Your task to perform on an android device: snooze an email in the gmail app Image 0: 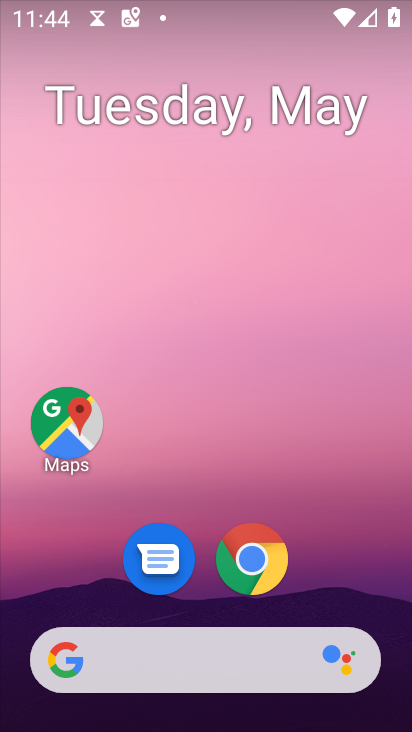
Step 0: drag from (313, 542) to (261, 98)
Your task to perform on an android device: snooze an email in the gmail app Image 1: 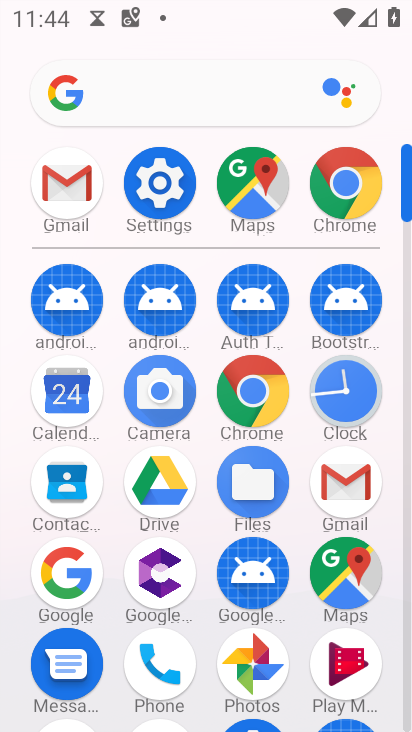
Step 1: click (51, 190)
Your task to perform on an android device: snooze an email in the gmail app Image 2: 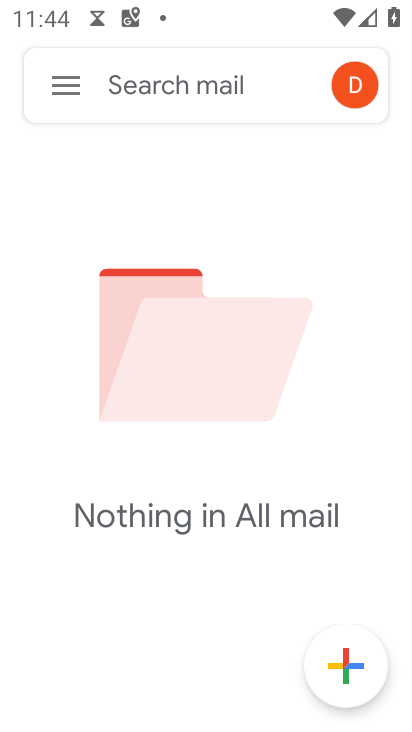
Step 2: click (69, 92)
Your task to perform on an android device: snooze an email in the gmail app Image 3: 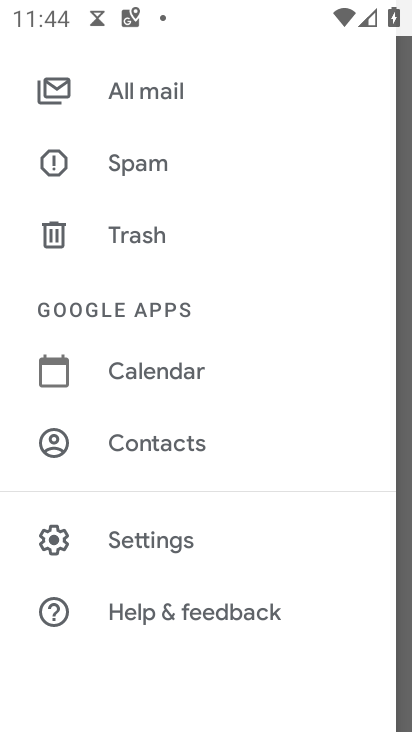
Step 3: click (185, 556)
Your task to perform on an android device: snooze an email in the gmail app Image 4: 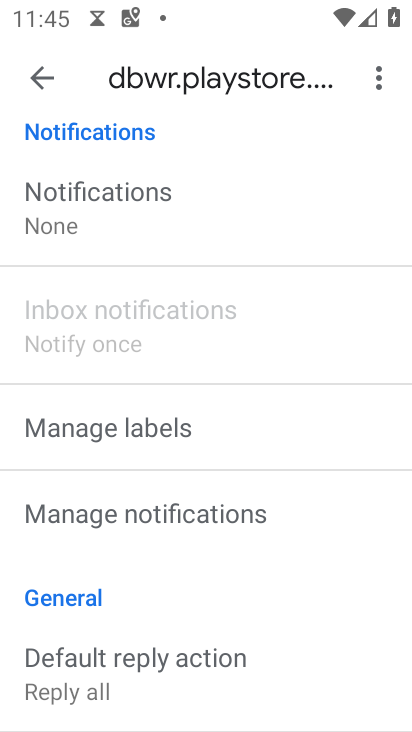
Step 4: click (319, 190)
Your task to perform on an android device: snooze an email in the gmail app Image 5: 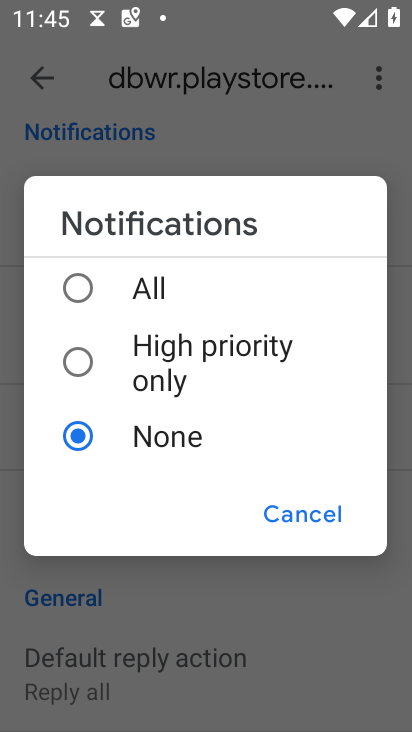
Step 5: click (318, 521)
Your task to perform on an android device: snooze an email in the gmail app Image 6: 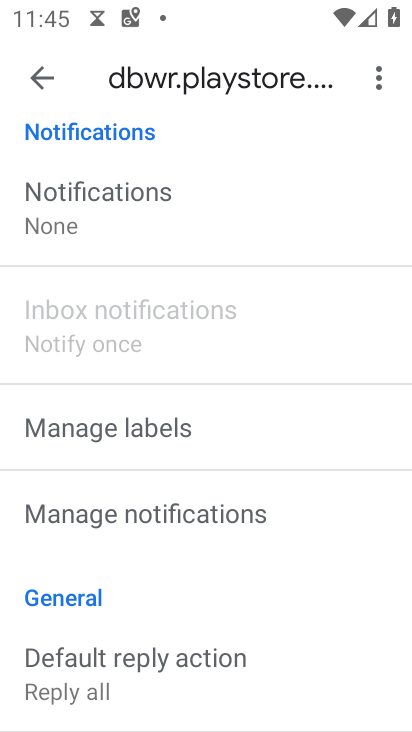
Step 6: click (32, 80)
Your task to perform on an android device: snooze an email in the gmail app Image 7: 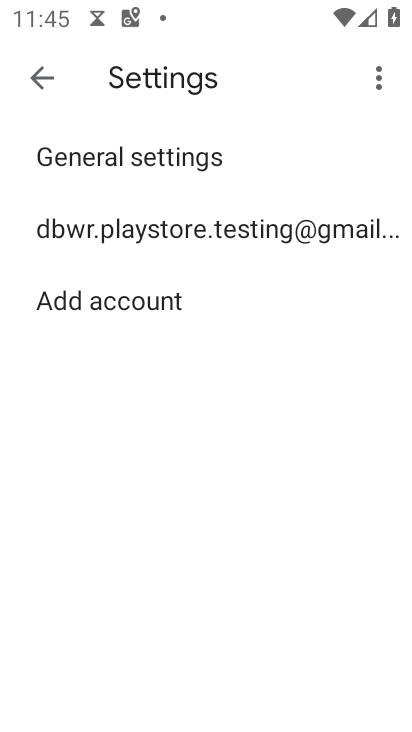
Step 7: click (118, 244)
Your task to perform on an android device: snooze an email in the gmail app Image 8: 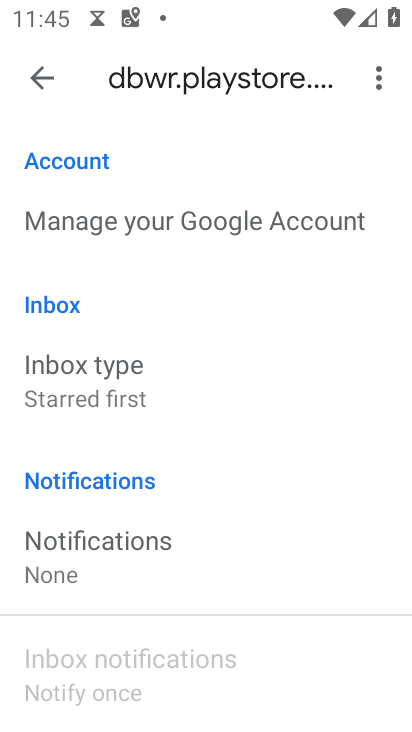
Step 8: click (34, 92)
Your task to perform on an android device: snooze an email in the gmail app Image 9: 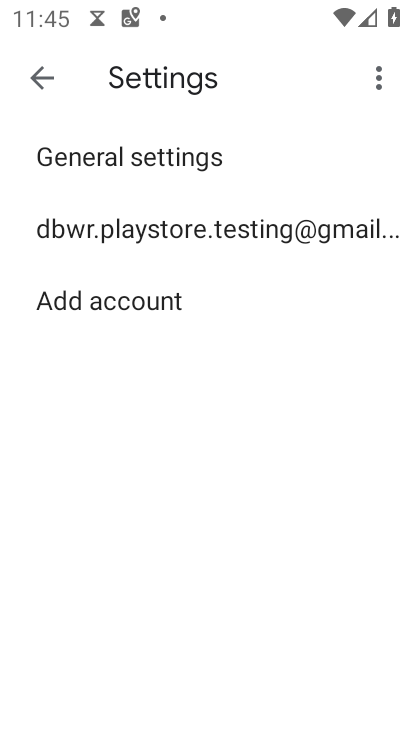
Step 9: click (34, 92)
Your task to perform on an android device: snooze an email in the gmail app Image 10: 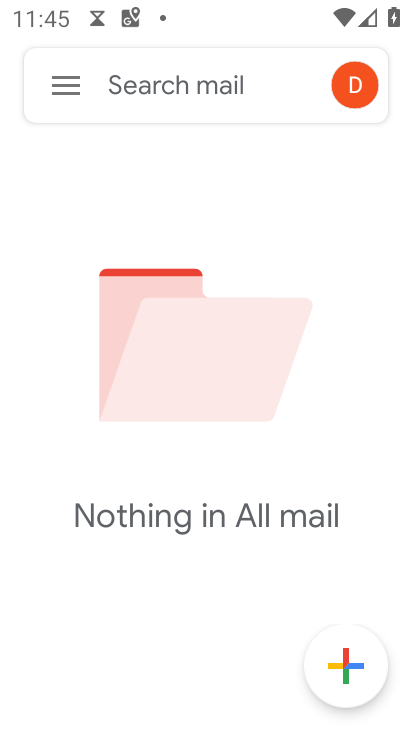
Step 10: click (61, 103)
Your task to perform on an android device: snooze an email in the gmail app Image 11: 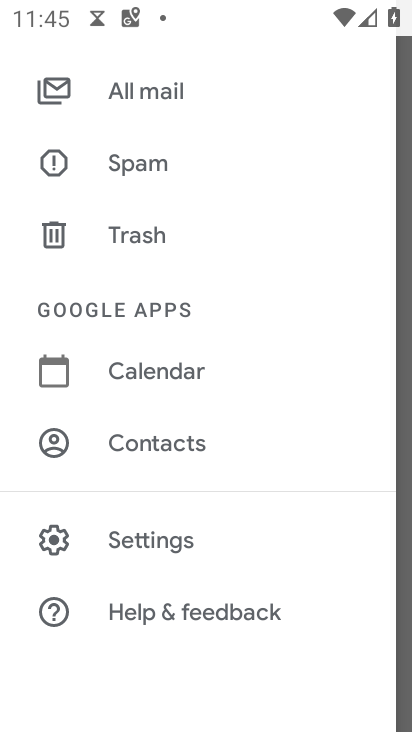
Step 11: drag from (204, 257) to (255, 702)
Your task to perform on an android device: snooze an email in the gmail app Image 12: 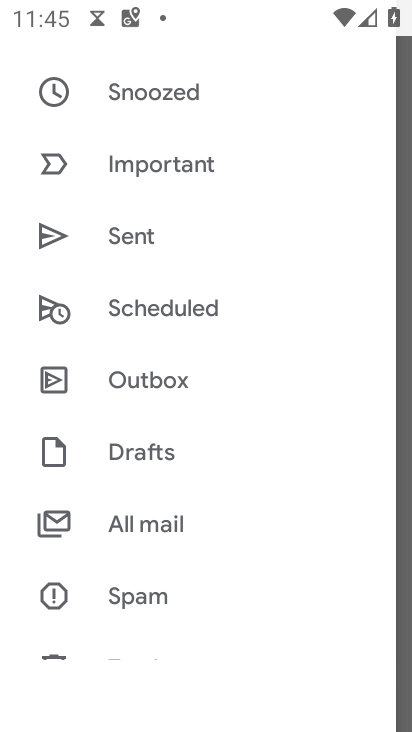
Step 12: drag from (215, 164) to (261, 656)
Your task to perform on an android device: snooze an email in the gmail app Image 13: 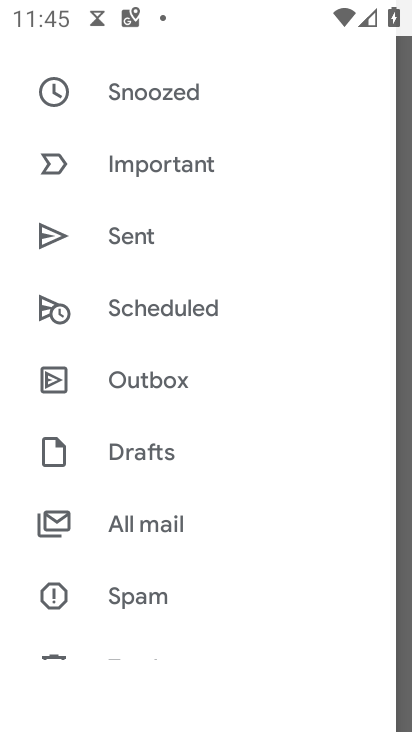
Step 13: click (167, 103)
Your task to perform on an android device: snooze an email in the gmail app Image 14: 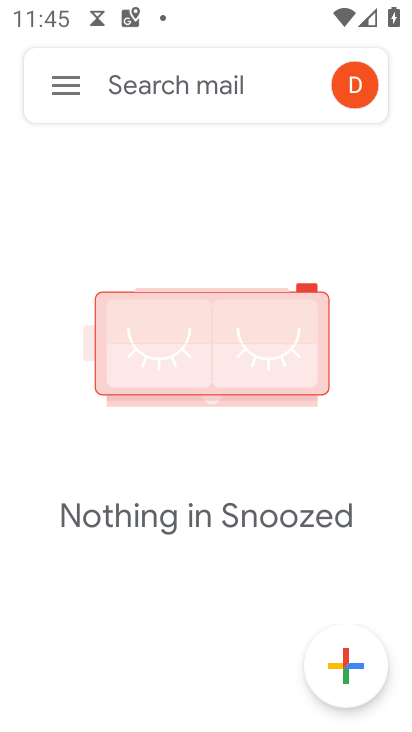
Step 14: task complete